Your task to perform on an android device: Clear the shopping cart on bestbuy. Image 0: 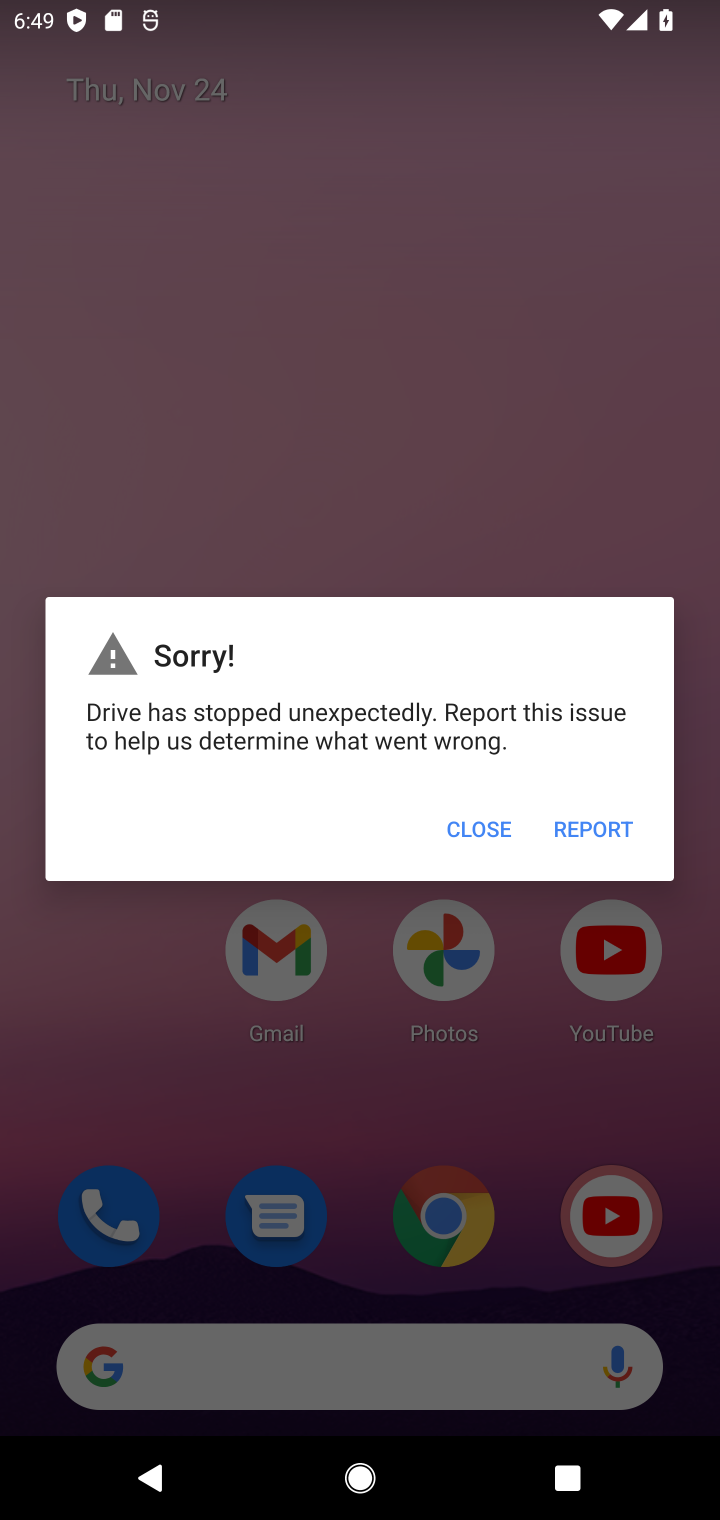
Step 0: click (493, 828)
Your task to perform on an android device: Clear the shopping cart on bestbuy. Image 1: 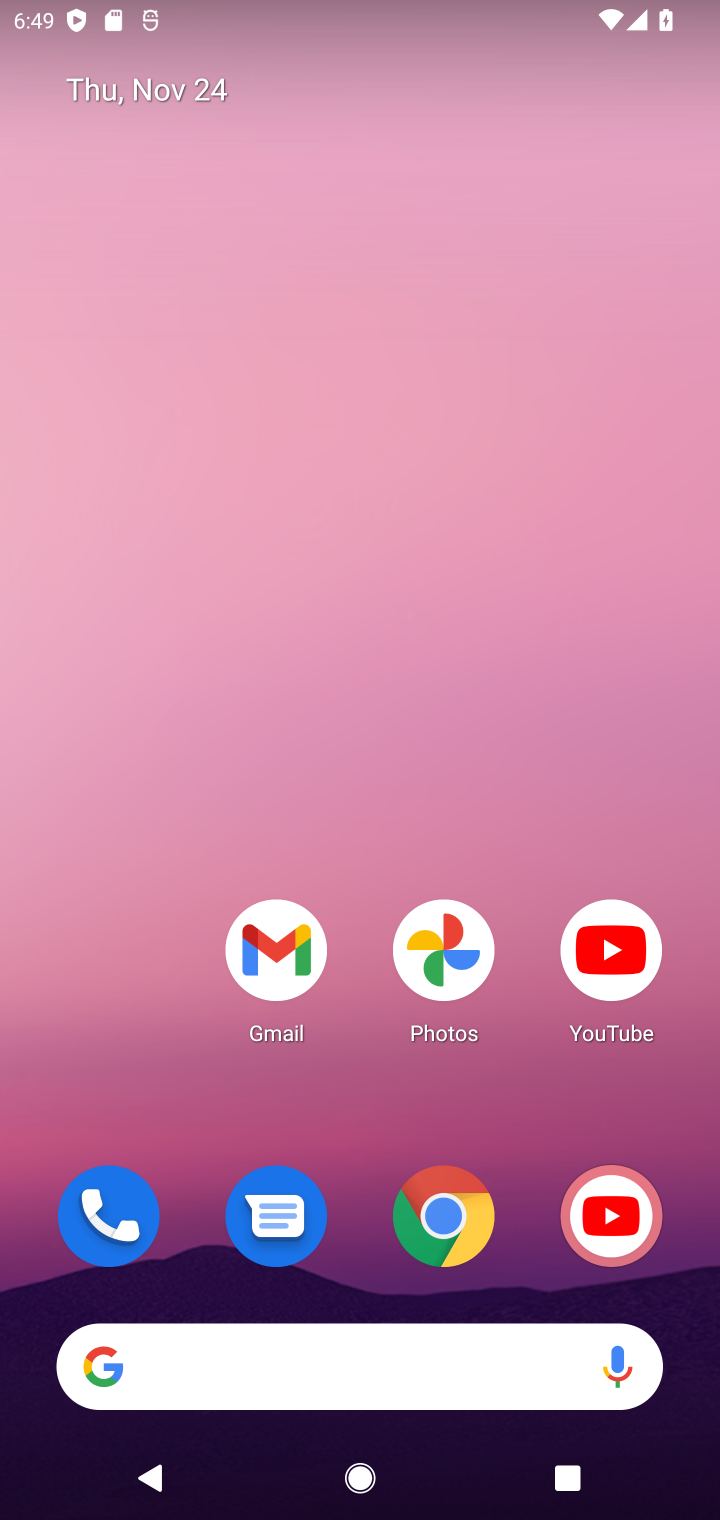
Step 1: click (445, 1216)
Your task to perform on an android device: Clear the shopping cart on bestbuy. Image 2: 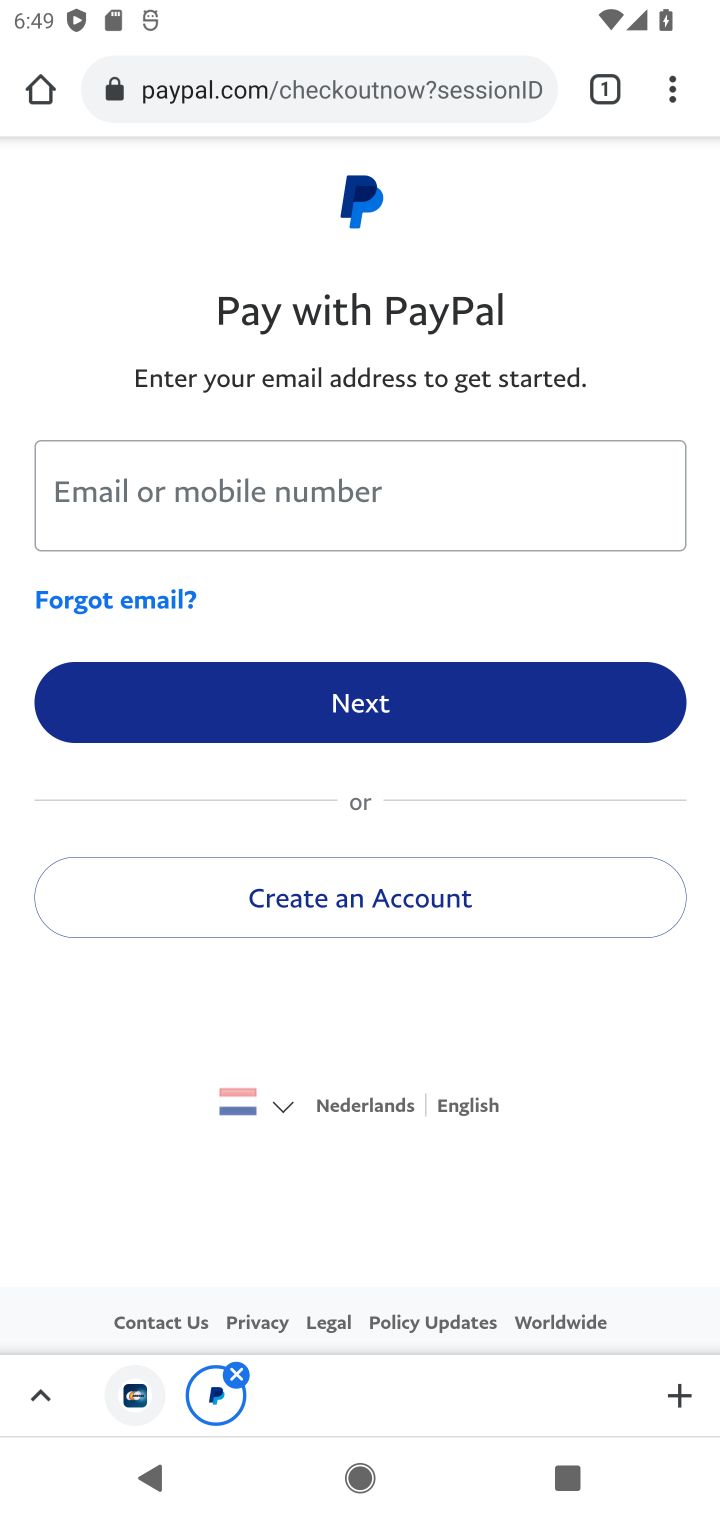
Step 2: click (289, 84)
Your task to perform on an android device: Clear the shopping cart on bestbuy. Image 3: 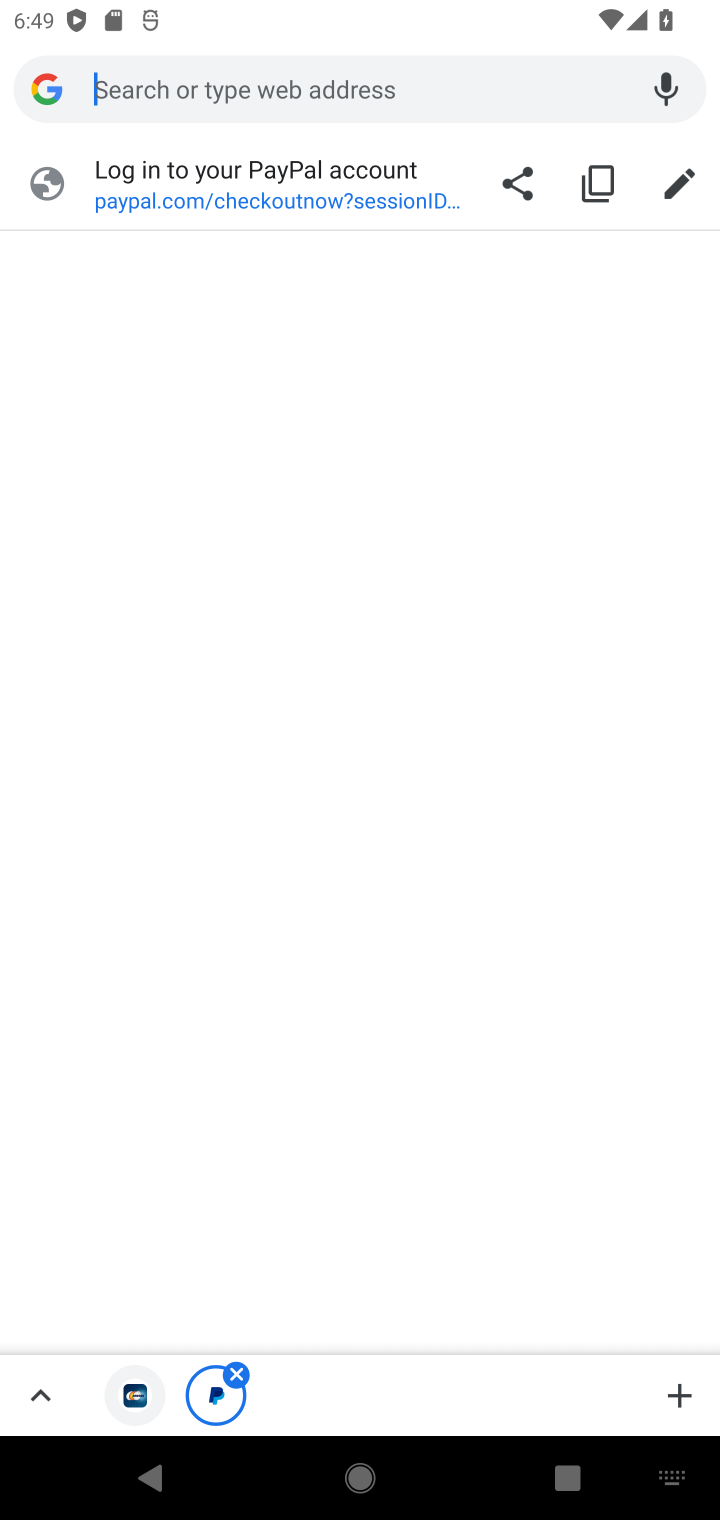
Step 3: type "bestbuy"
Your task to perform on an android device: Clear the shopping cart on bestbuy. Image 4: 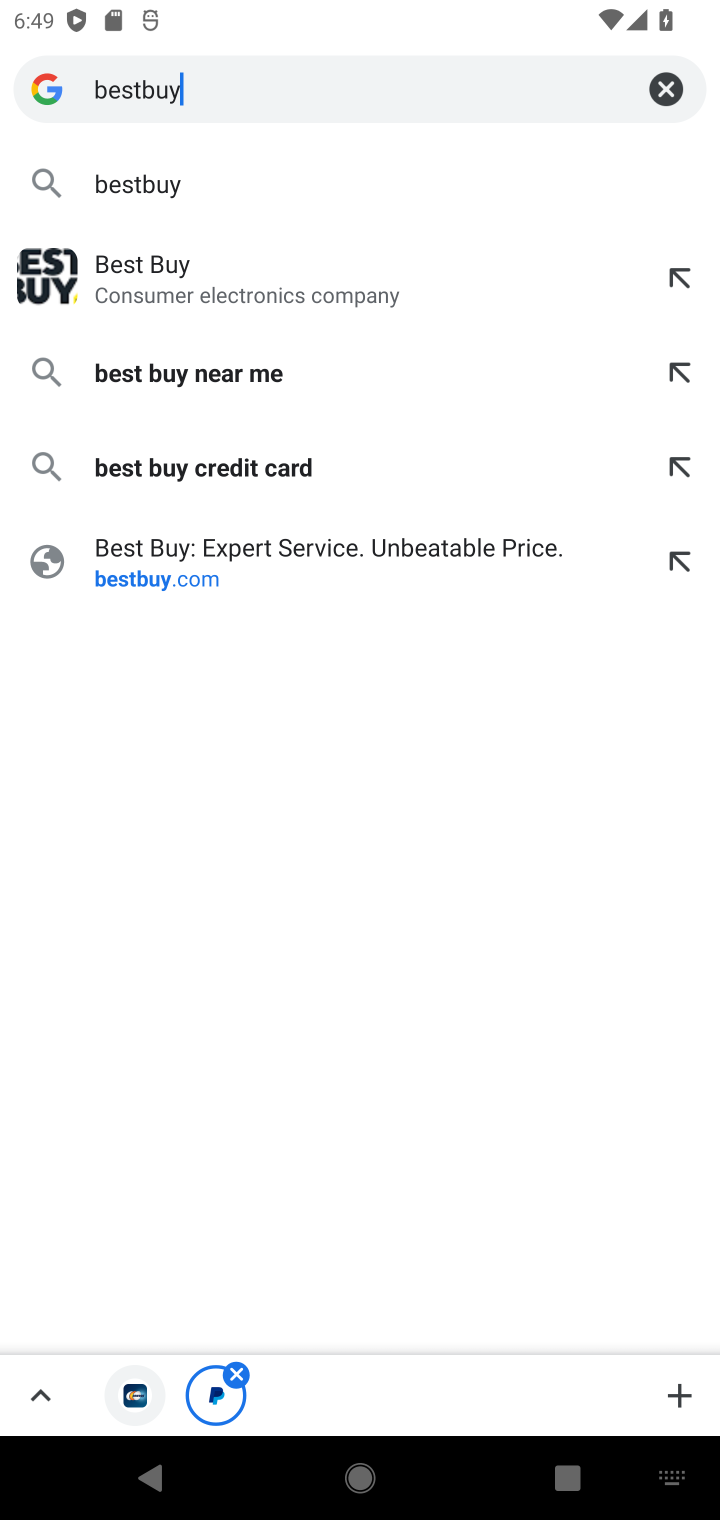
Step 4: click (205, 214)
Your task to perform on an android device: Clear the shopping cart on bestbuy. Image 5: 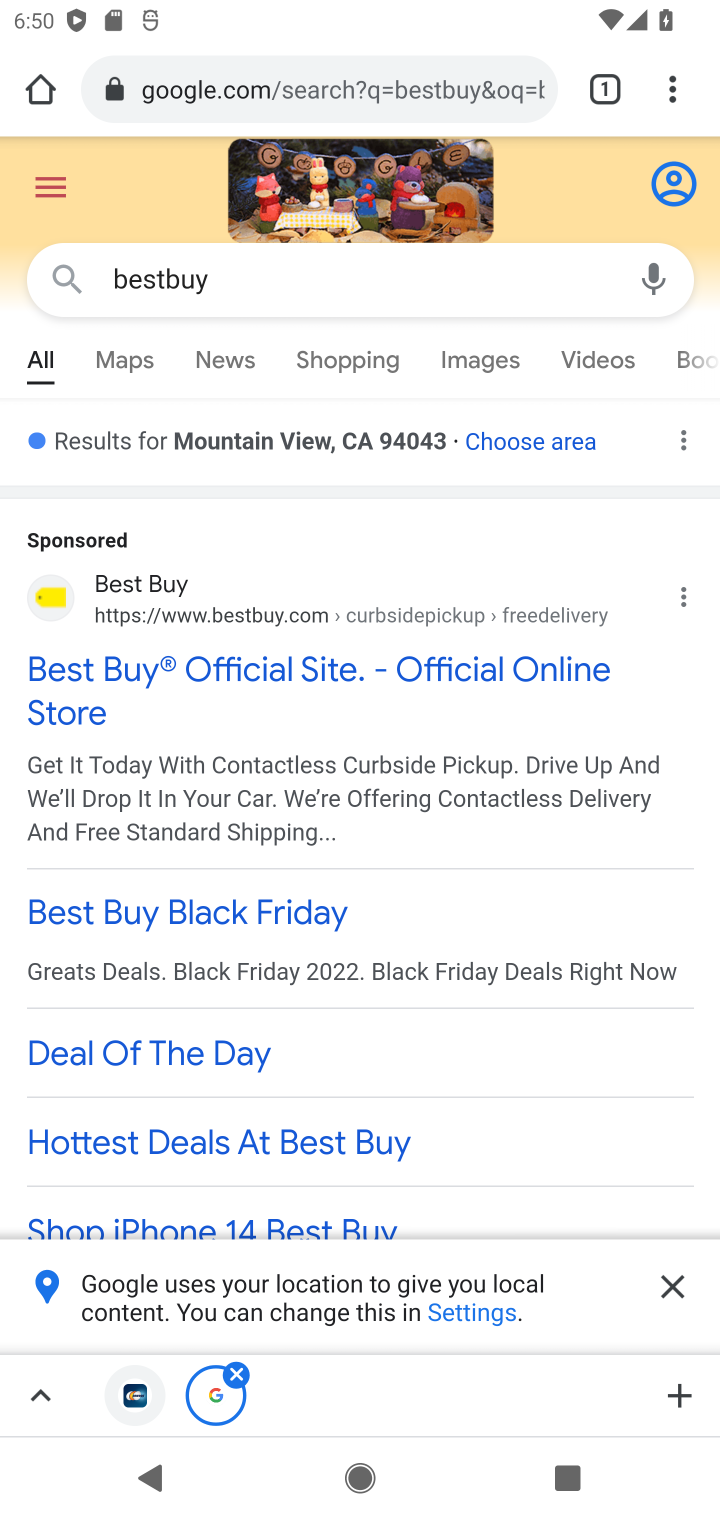
Step 5: click (98, 708)
Your task to perform on an android device: Clear the shopping cart on bestbuy. Image 6: 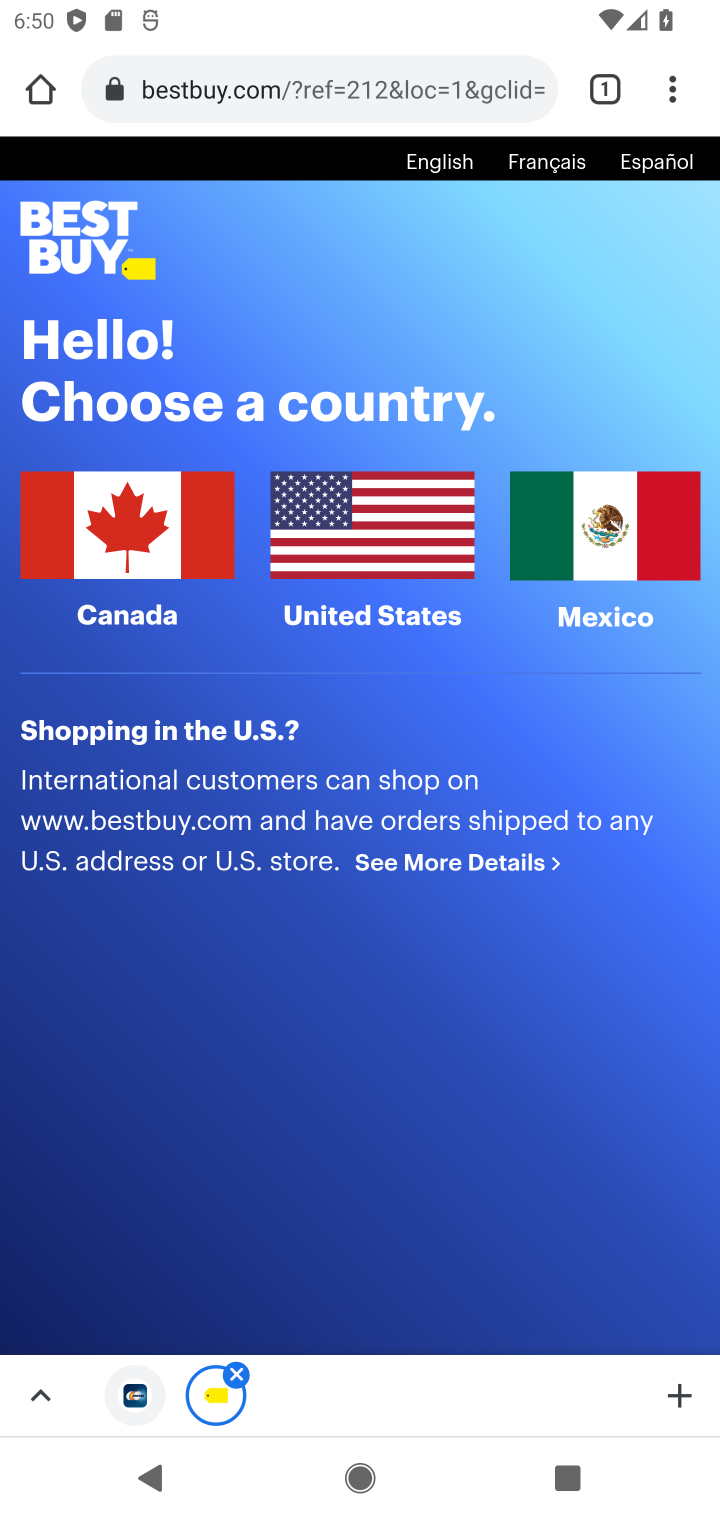
Step 6: click (341, 553)
Your task to perform on an android device: Clear the shopping cart on bestbuy. Image 7: 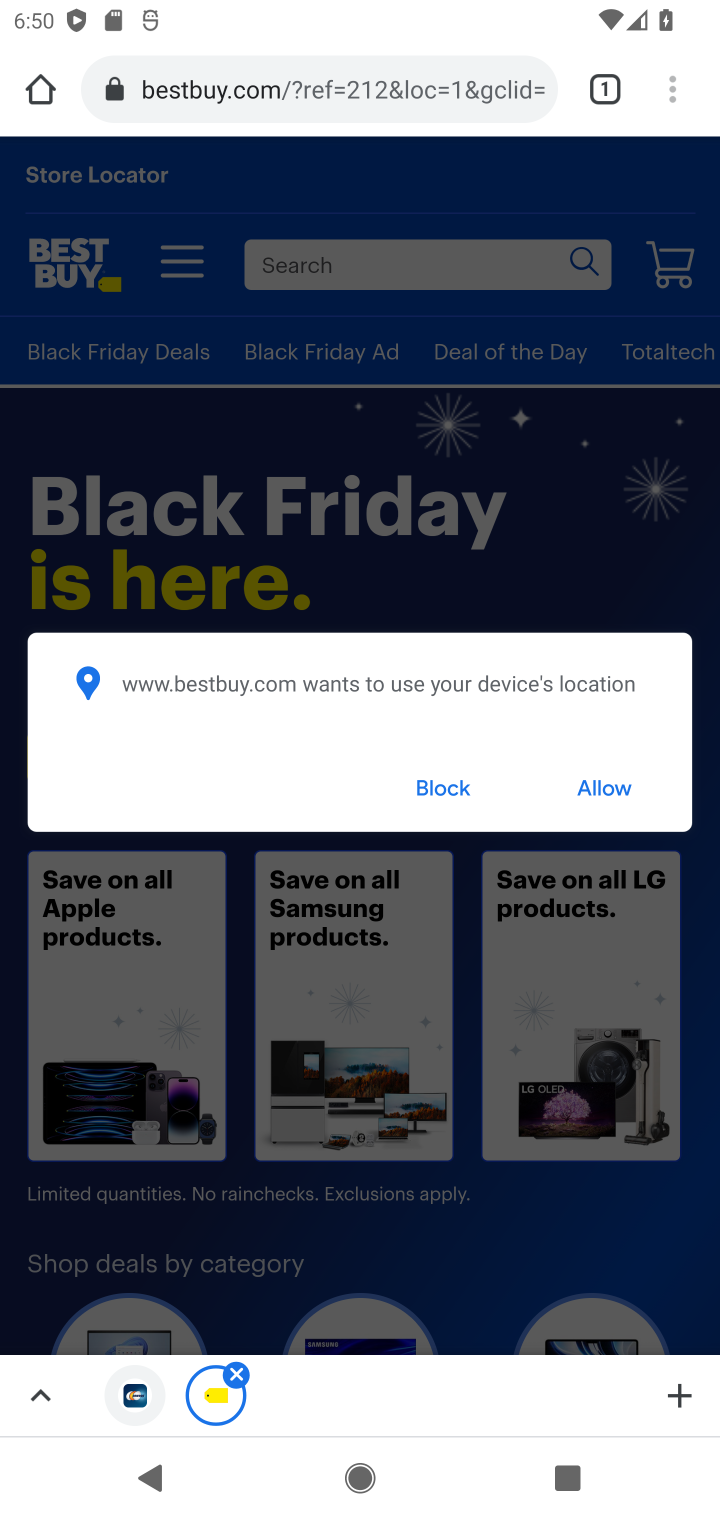
Step 7: click (585, 781)
Your task to perform on an android device: Clear the shopping cart on bestbuy. Image 8: 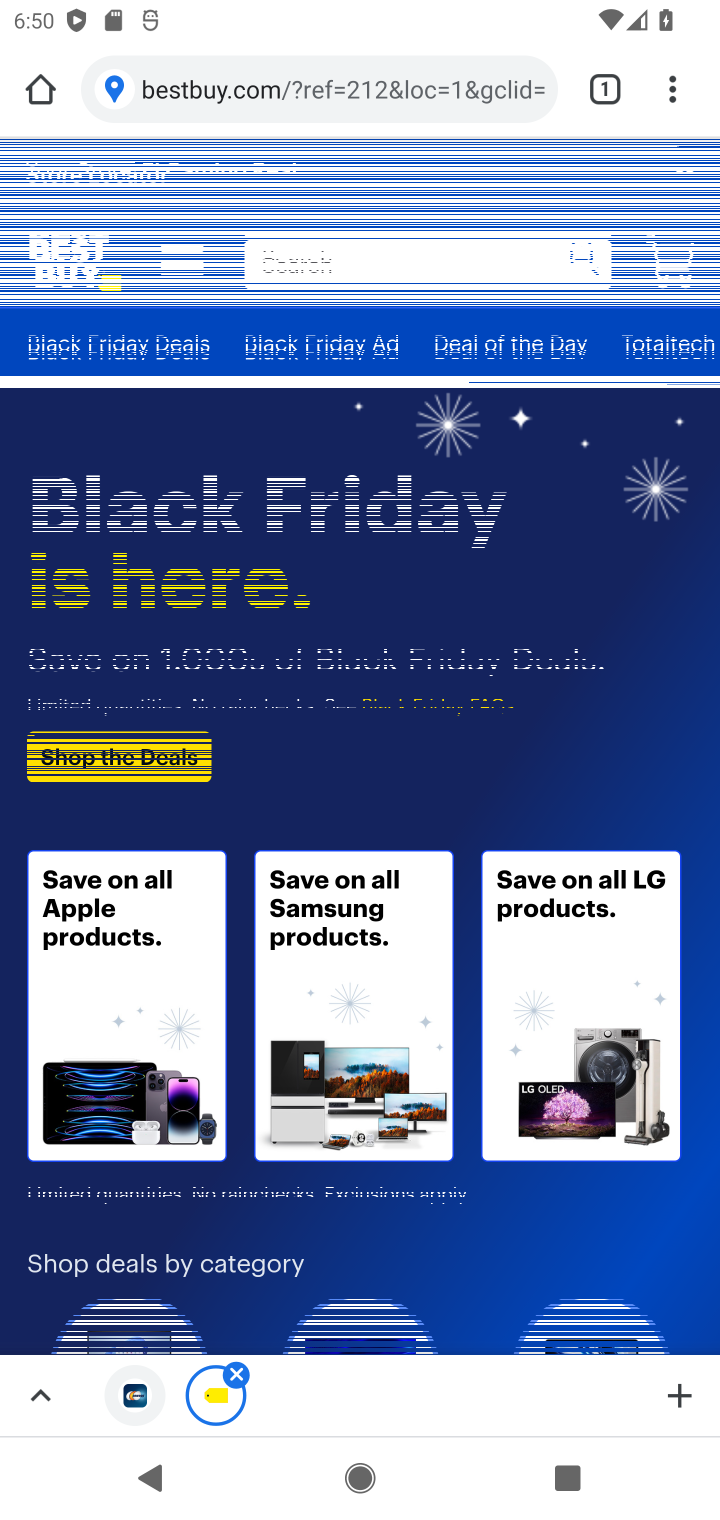
Step 8: click (675, 269)
Your task to perform on an android device: Clear the shopping cart on bestbuy. Image 9: 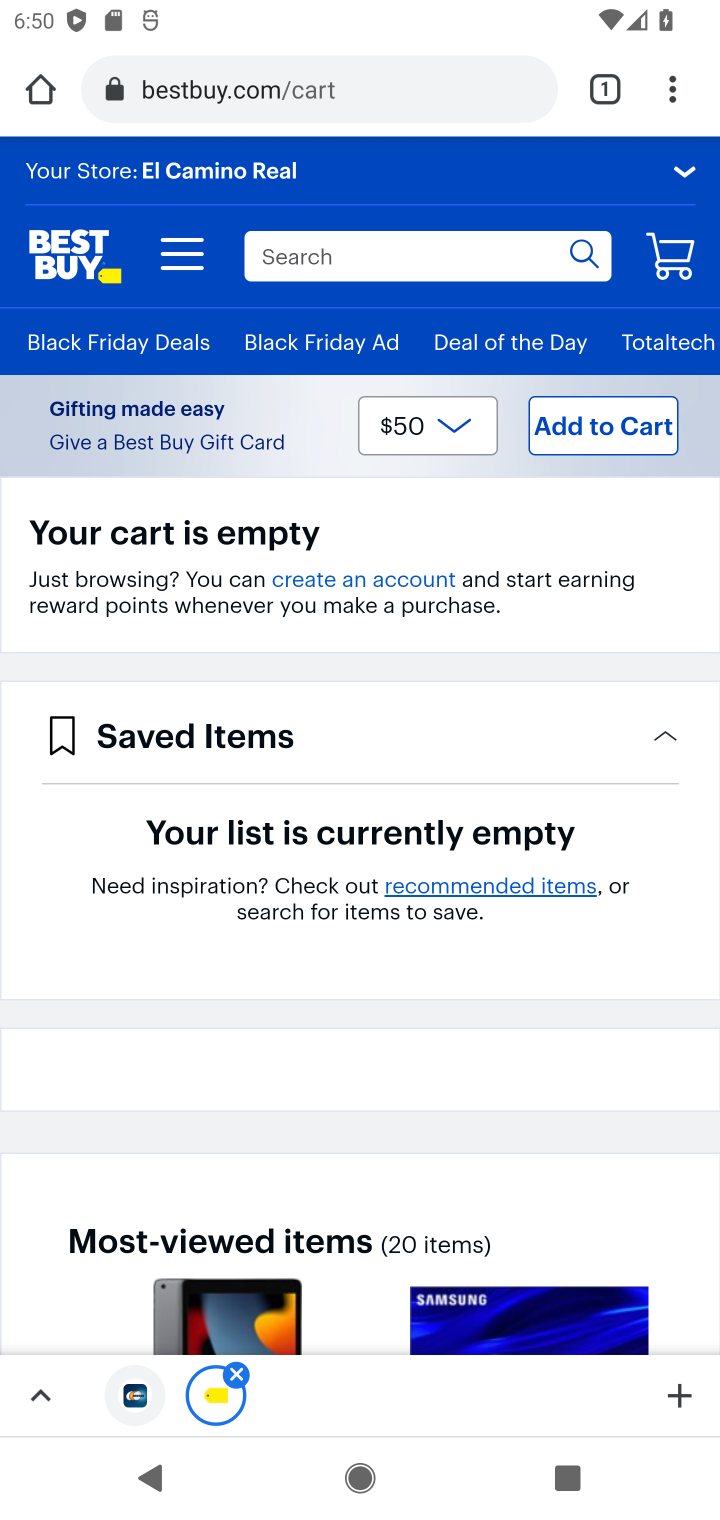
Step 9: task complete